Your task to perform on an android device: change the clock style Image 0: 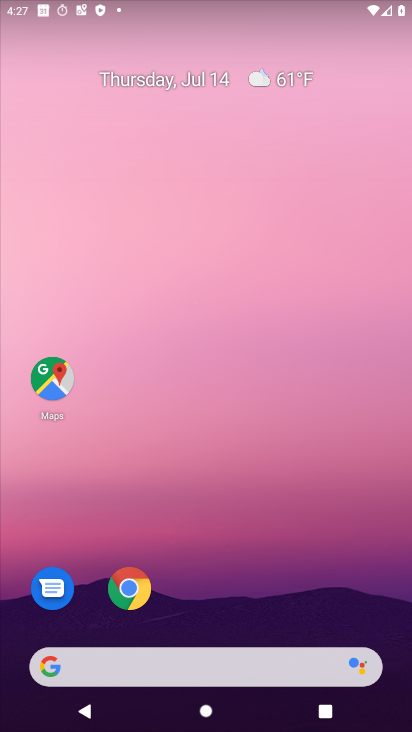
Step 0: drag from (186, 667) to (307, 180)
Your task to perform on an android device: change the clock style Image 1: 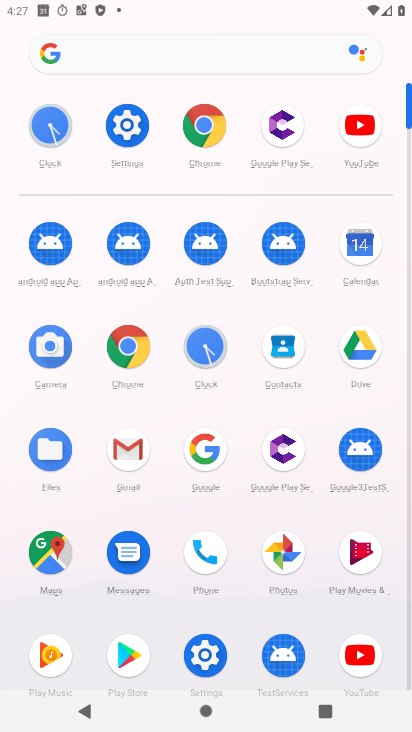
Step 1: click (47, 127)
Your task to perform on an android device: change the clock style Image 2: 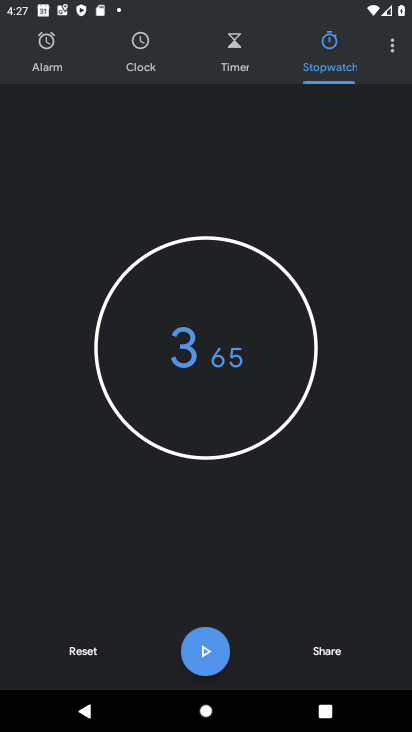
Step 2: click (395, 43)
Your task to perform on an android device: change the clock style Image 3: 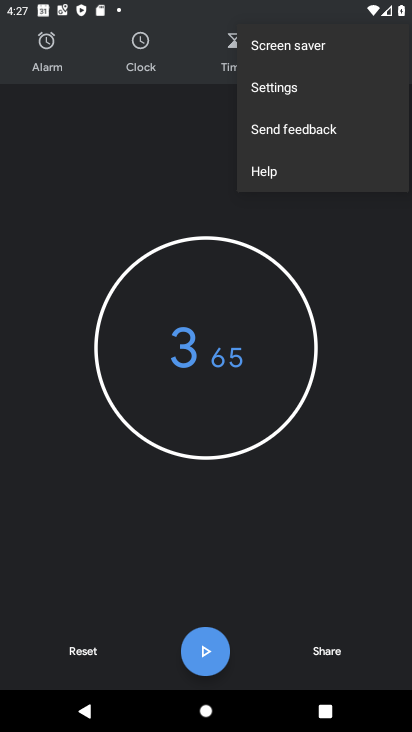
Step 3: click (267, 91)
Your task to perform on an android device: change the clock style Image 4: 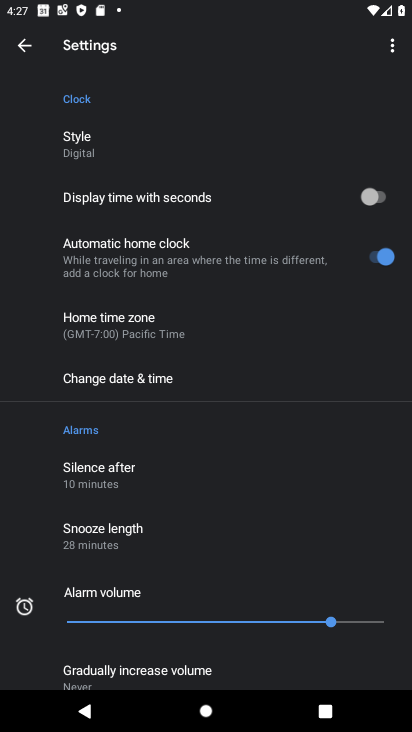
Step 4: click (93, 153)
Your task to perform on an android device: change the clock style Image 5: 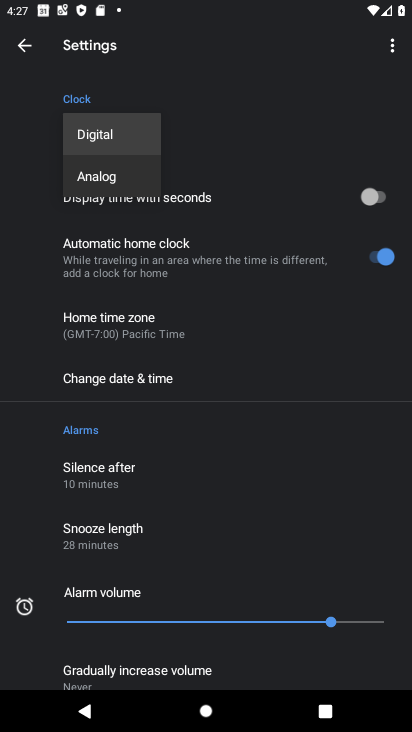
Step 5: click (121, 182)
Your task to perform on an android device: change the clock style Image 6: 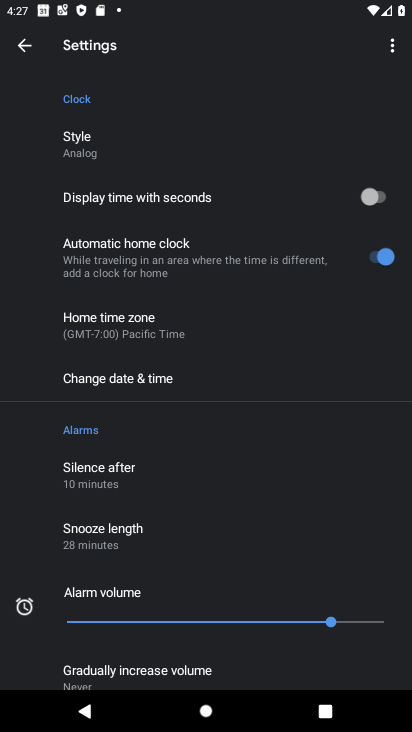
Step 6: task complete